Your task to perform on an android device: find snoozed emails in the gmail app Image 0: 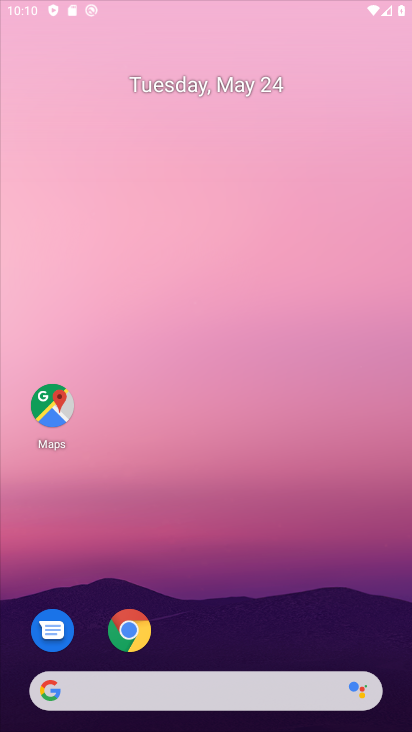
Step 0: press home button
Your task to perform on an android device: find snoozed emails in the gmail app Image 1: 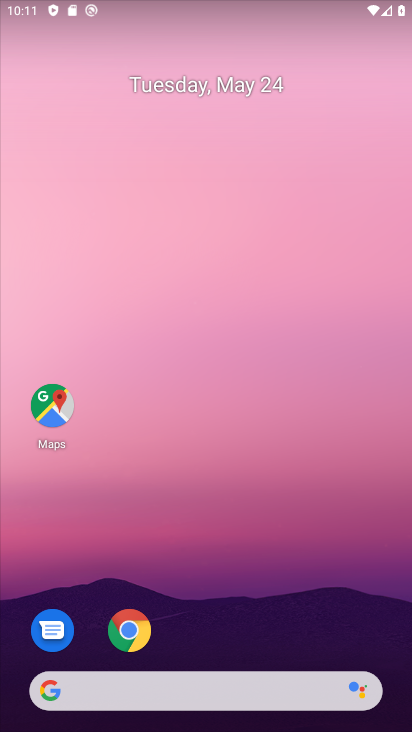
Step 1: drag from (213, 643) to (236, 141)
Your task to perform on an android device: find snoozed emails in the gmail app Image 2: 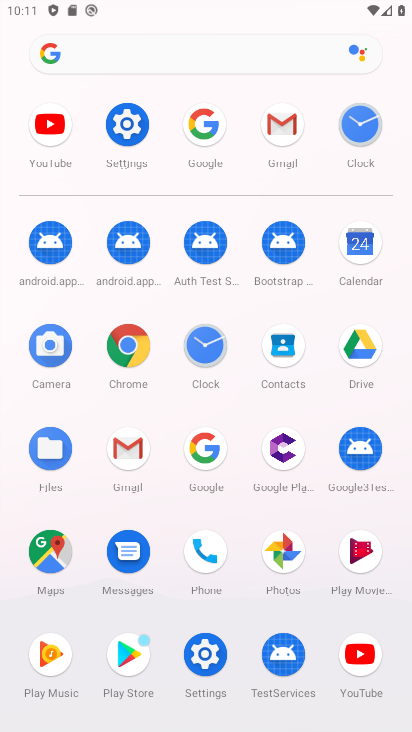
Step 2: click (279, 115)
Your task to perform on an android device: find snoozed emails in the gmail app Image 3: 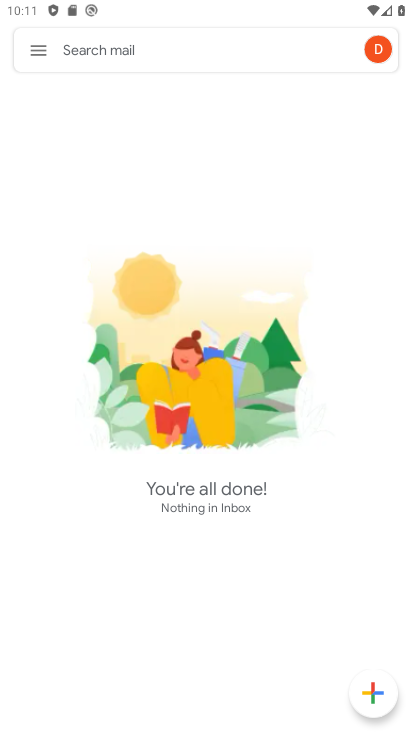
Step 3: click (34, 44)
Your task to perform on an android device: find snoozed emails in the gmail app Image 4: 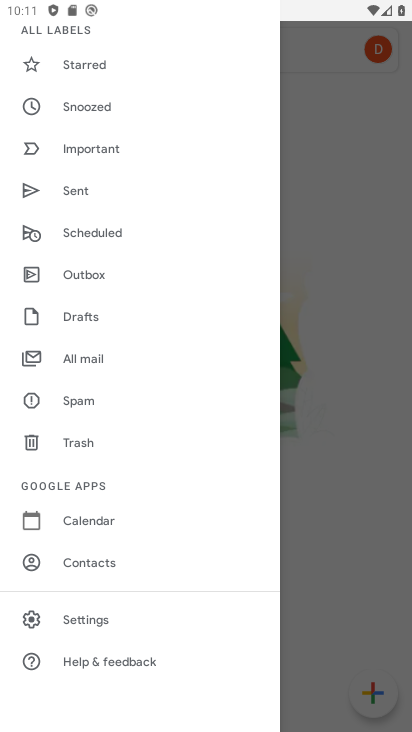
Step 4: click (97, 102)
Your task to perform on an android device: find snoozed emails in the gmail app Image 5: 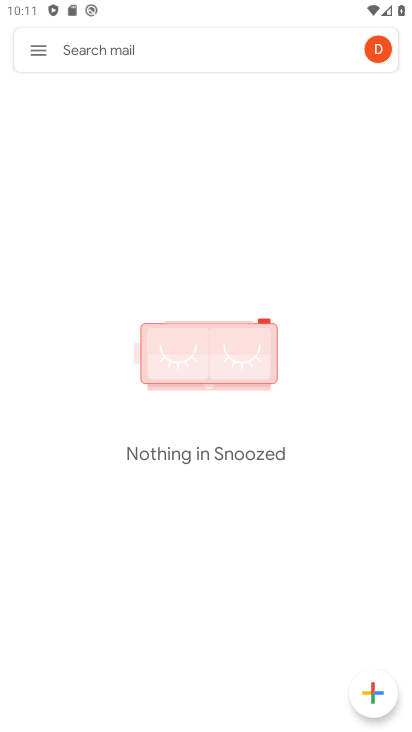
Step 5: task complete